Your task to perform on an android device: Search for vegetarian restaurants on Maps Image 0: 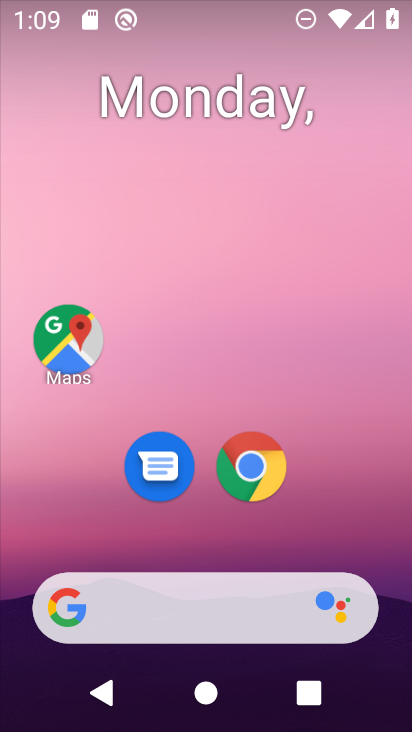
Step 0: click (89, 333)
Your task to perform on an android device: Search for vegetarian restaurants on Maps Image 1: 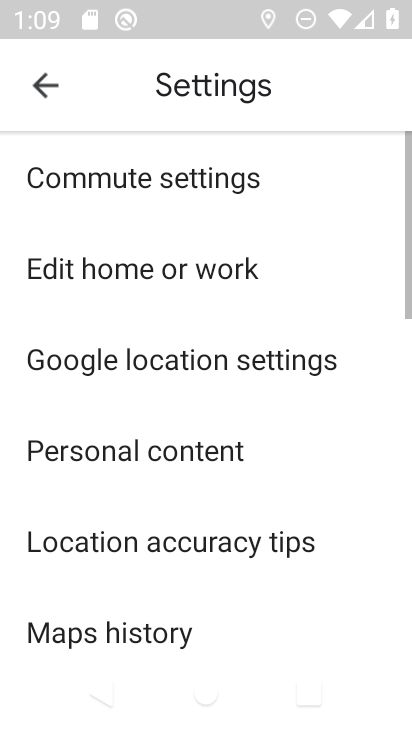
Step 1: click (43, 86)
Your task to perform on an android device: Search for vegetarian restaurants on Maps Image 2: 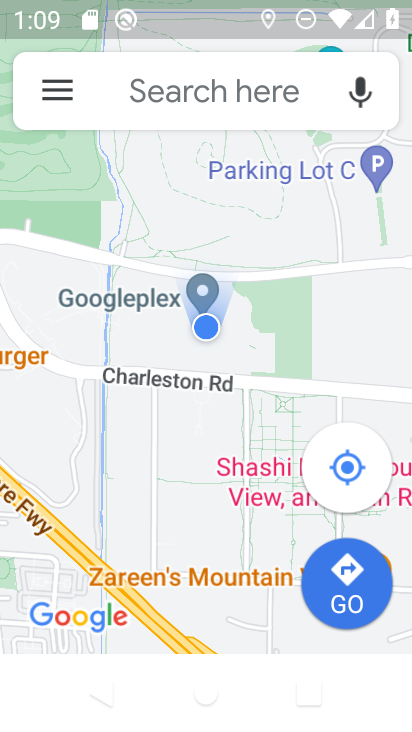
Step 2: click (199, 97)
Your task to perform on an android device: Search for vegetarian restaurants on Maps Image 3: 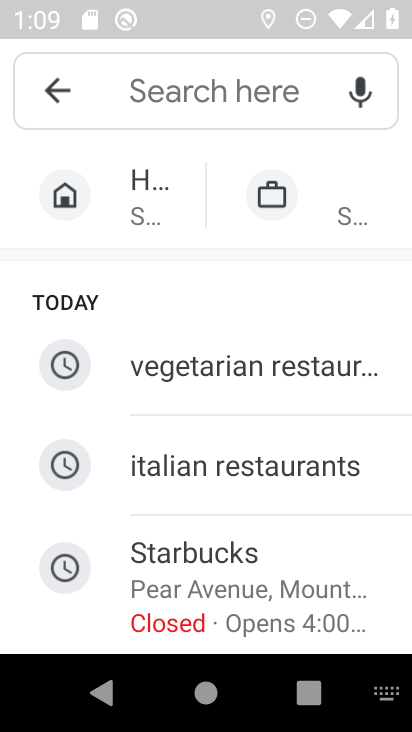
Step 3: type "vegetariian restaurants"
Your task to perform on an android device: Search for vegetarian restaurants on Maps Image 4: 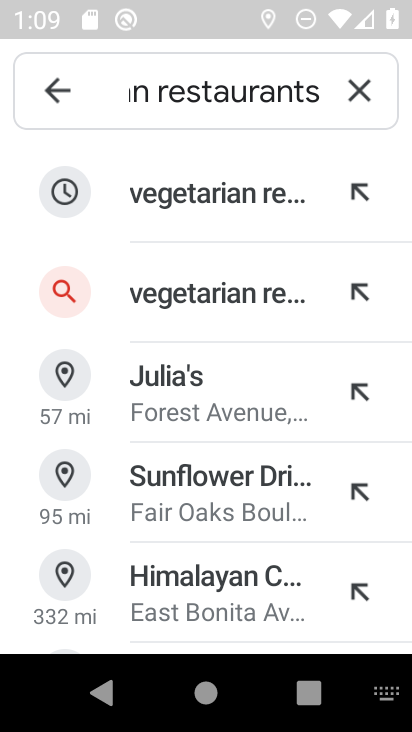
Step 4: click (231, 204)
Your task to perform on an android device: Search for vegetarian restaurants on Maps Image 5: 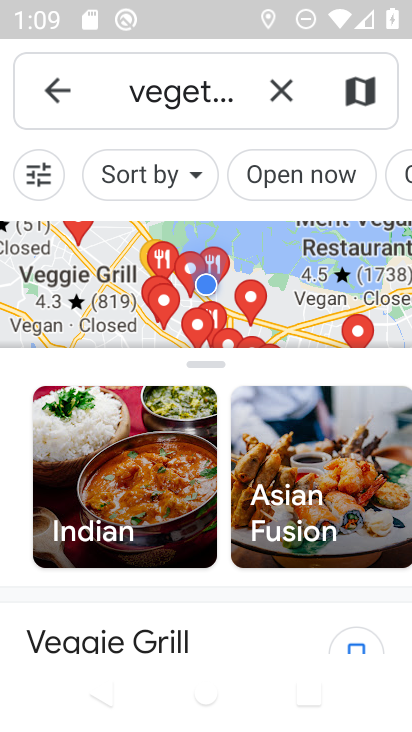
Step 5: task complete